Your task to perform on an android device: Open the phone app and click the voicemail tab. Image 0: 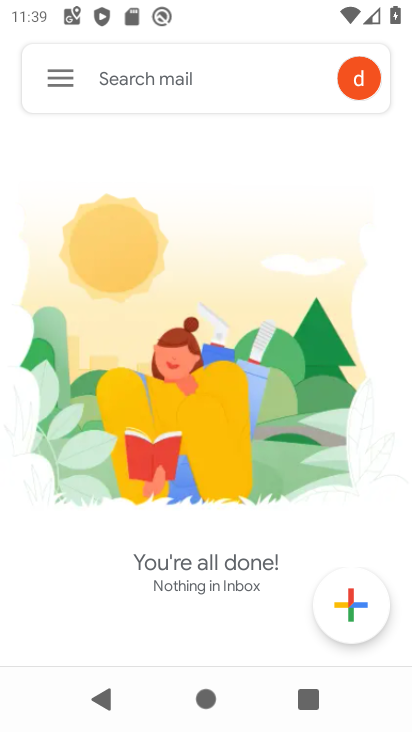
Step 0: press home button
Your task to perform on an android device: Open the phone app and click the voicemail tab. Image 1: 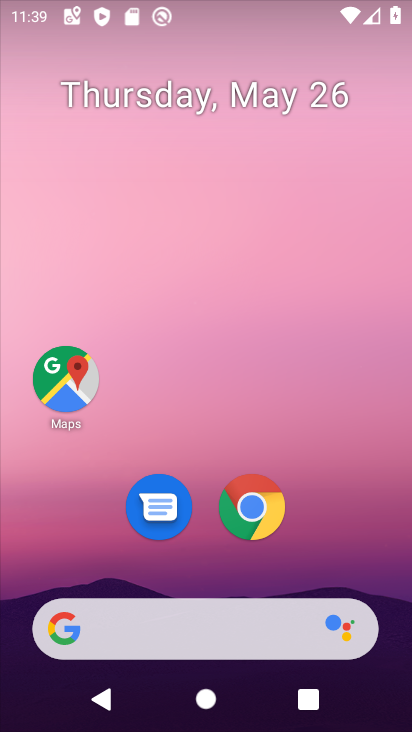
Step 1: drag from (355, 502) to (332, 147)
Your task to perform on an android device: Open the phone app and click the voicemail tab. Image 2: 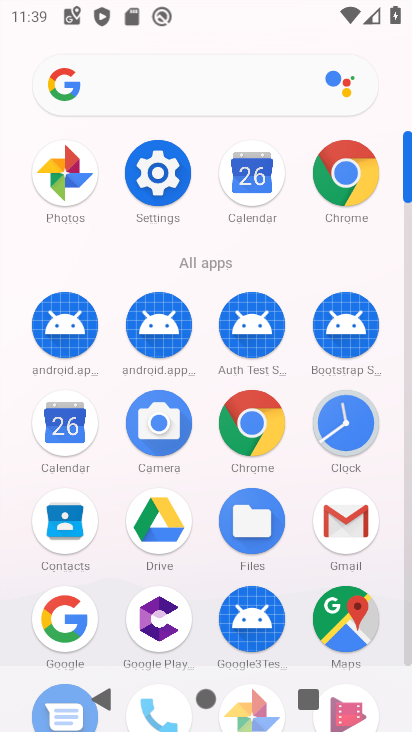
Step 2: drag from (210, 580) to (219, 314)
Your task to perform on an android device: Open the phone app and click the voicemail tab. Image 3: 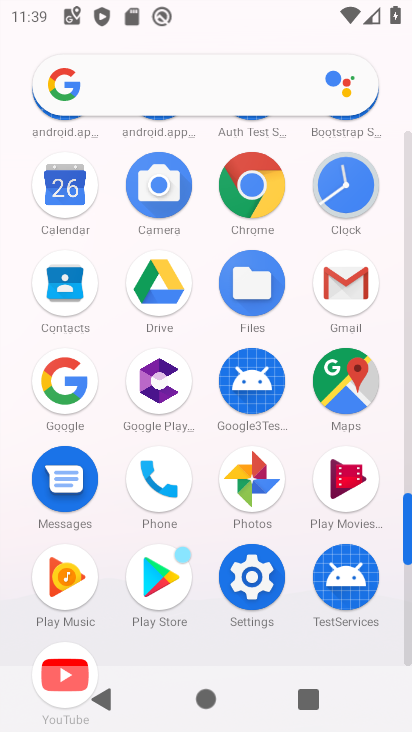
Step 3: click (168, 486)
Your task to perform on an android device: Open the phone app and click the voicemail tab. Image 4: 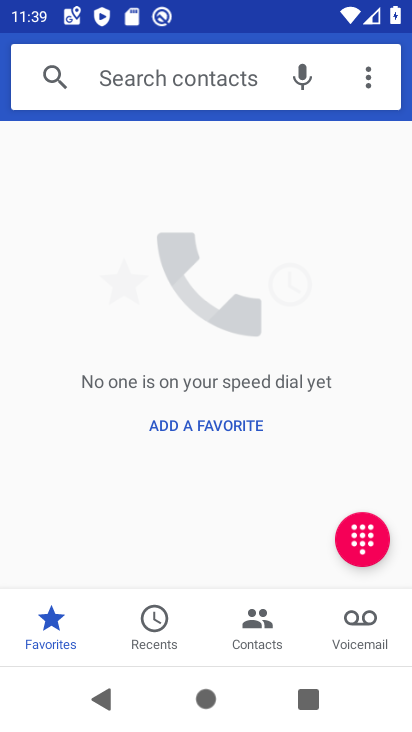
Step 4: click (376, 627)
Your task to perform on an android device: Open the phone app and click the voicemail tab. Image 5: 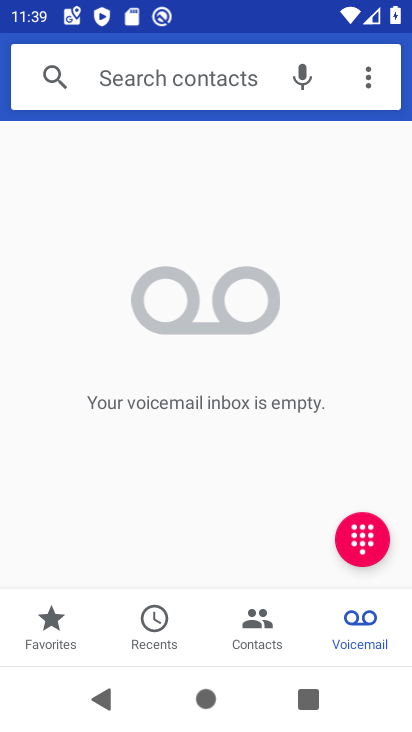
Step 5: task complete